Your task to perform on an android device: Open Chrome and go to settings Image 0: 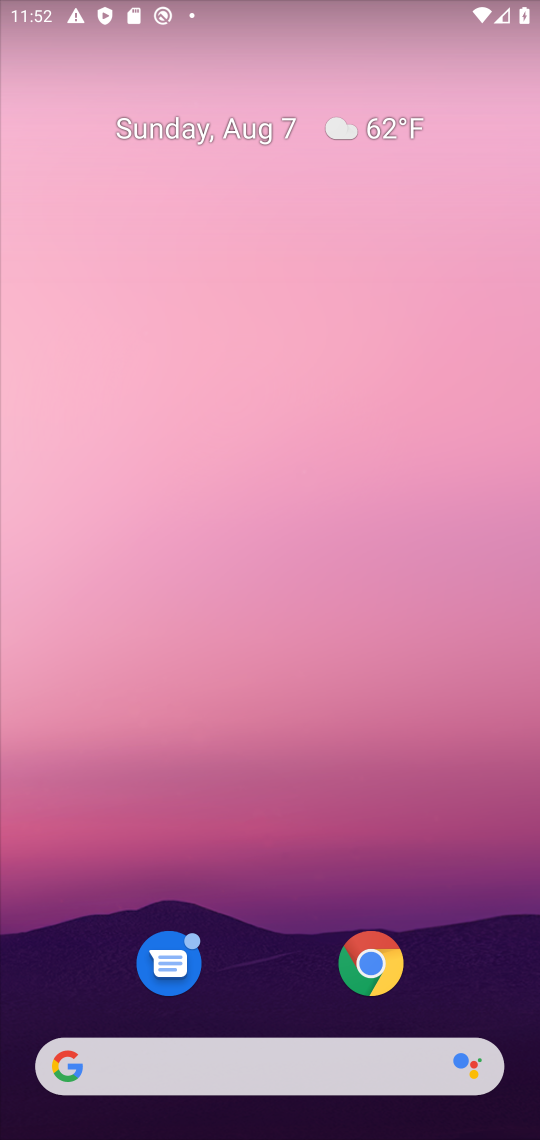
Step 0: drag from (508, 970) to (283, 74)
Your task to perform on an android device: Open Chrome and go to settings Image 1: 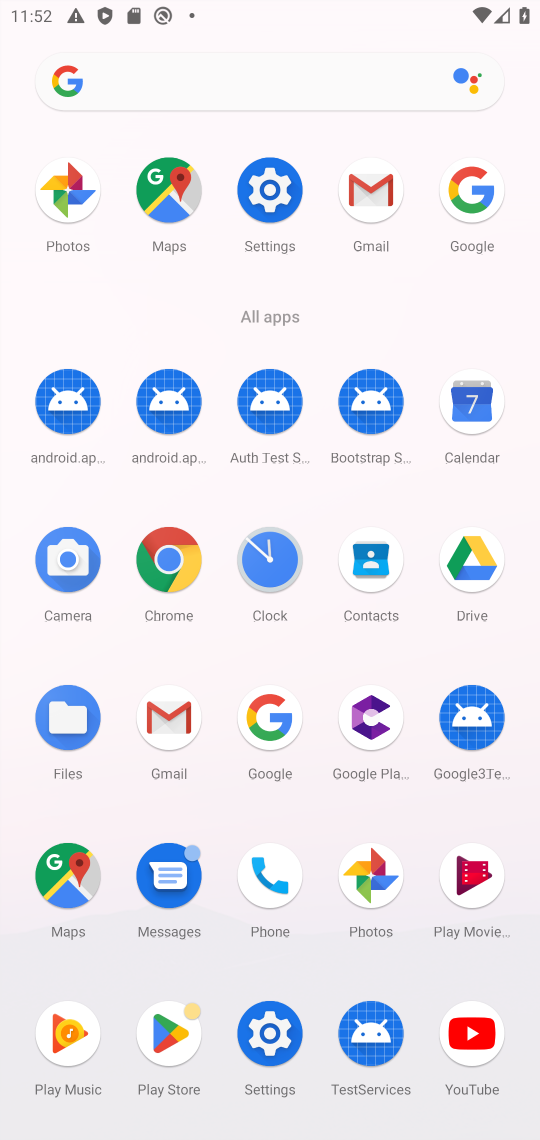
Step 1: click (171, 549)
Your task to perform on an android device: Open Chrome and go to settings Image 2: 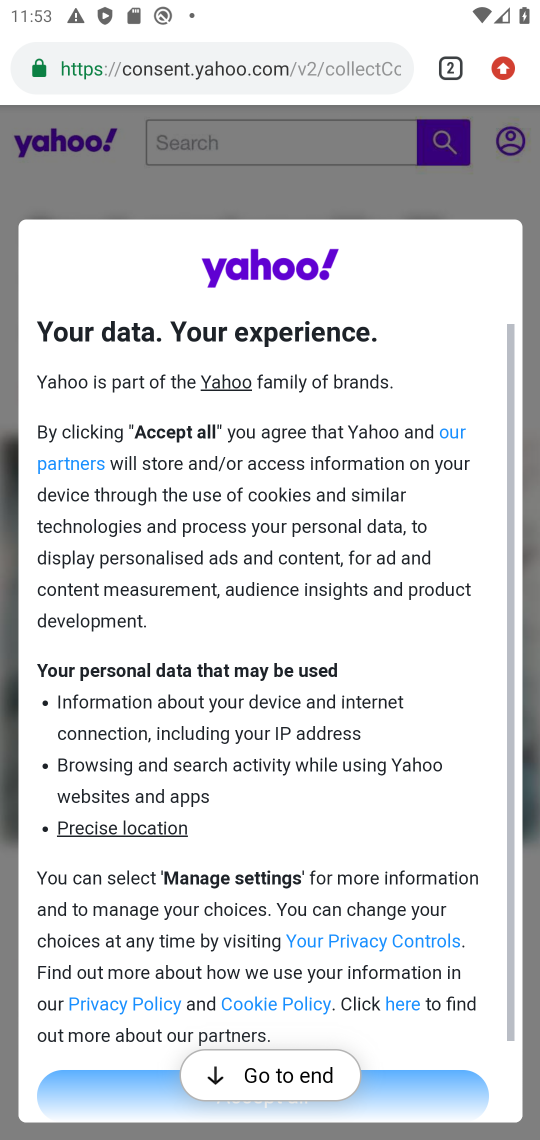
Step 2: press back button
Your task to perform on an android device: Open Chrome and go to settings Image 3: 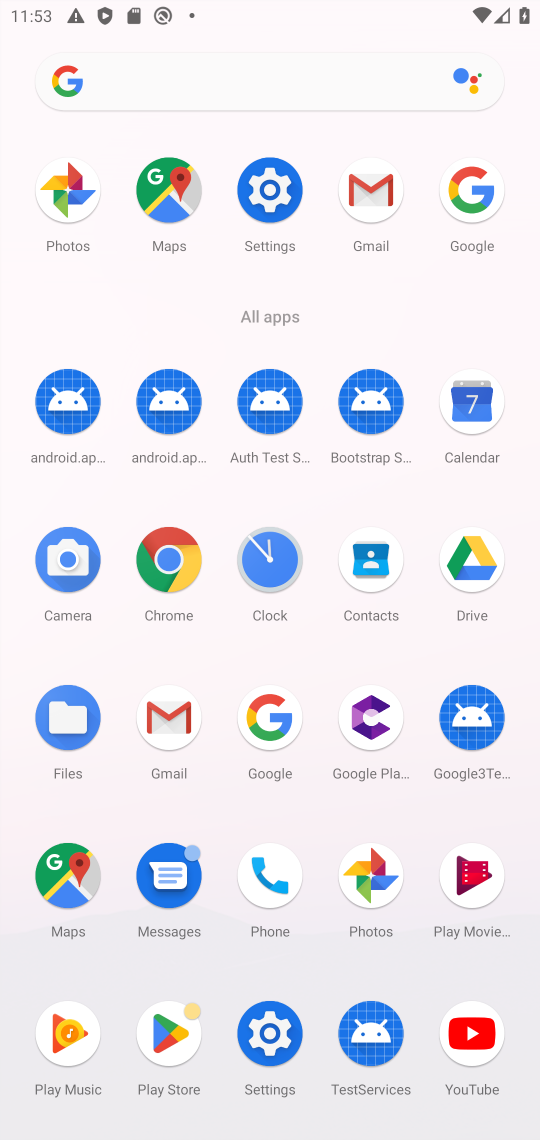
Step 3: click (164, 581)
Your task to perform on an android device: Open Chrome and go to settings Image 4: 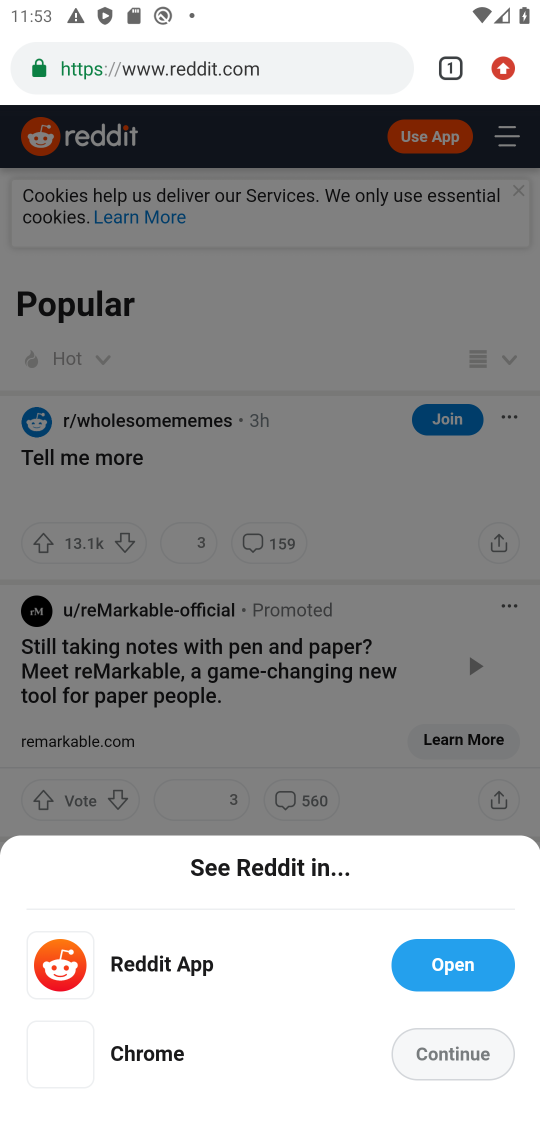
Step 4: click (498, 64)
Your task to perform on an android device: Open Chrome and go to settings Image 5: 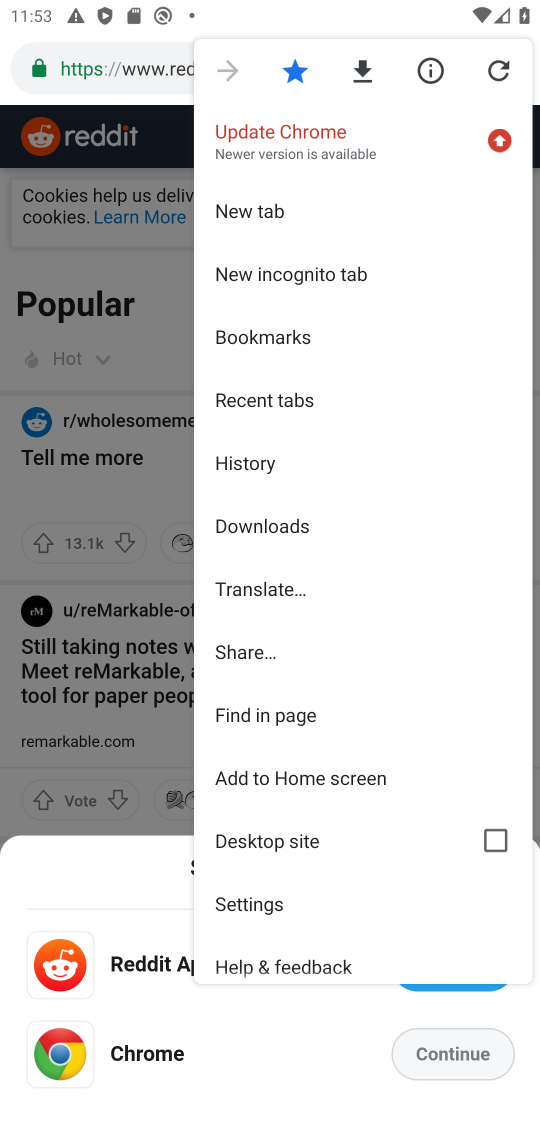
Step 5: click (282, 912)
Your task to perform on an android device: Open Chrome and go to settings Image 6: 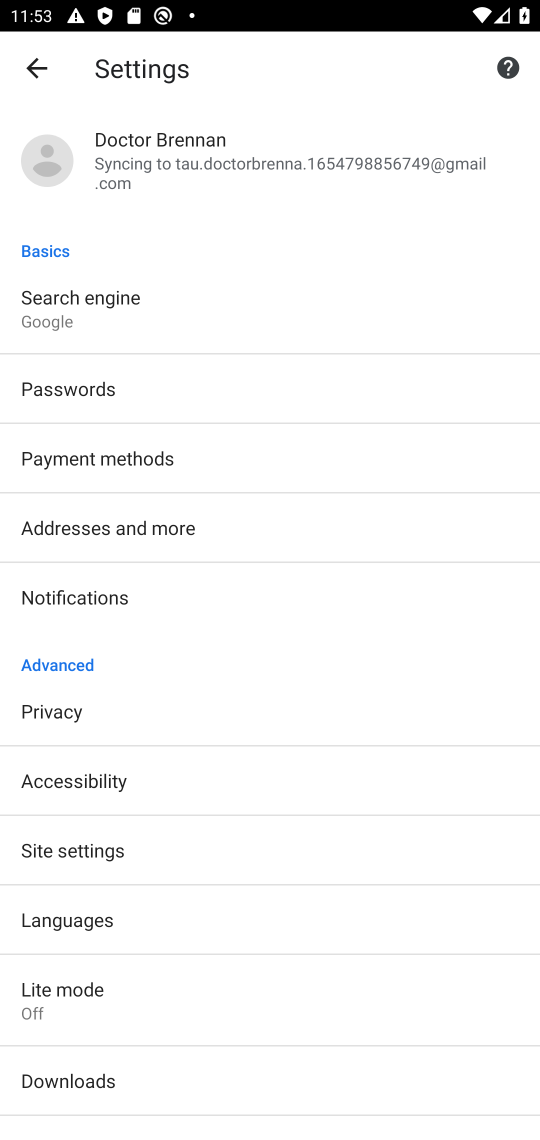
Step 6: task complete